Your task to perform on an android device: find snoozed emails in the gmail app Image 0: 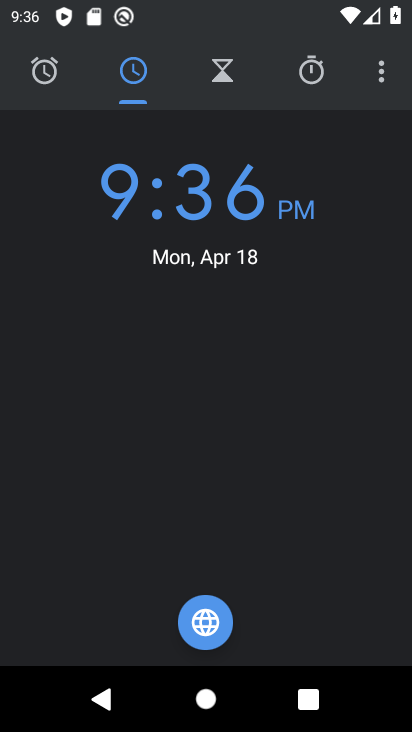
Step 0: press home button
Your task to perform on an android device: find snoozed emails in the gmail app Image 1: 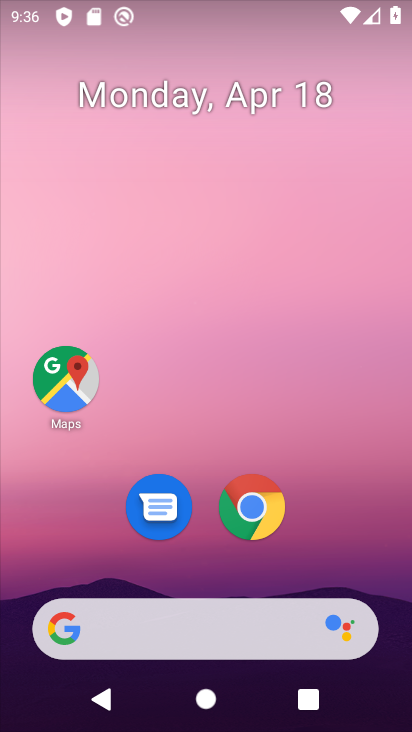
Step 1: drag from (214, 561) to (178, 16)
Your task to perform on an android device: find snoozed emails in the gmail app Image 2: 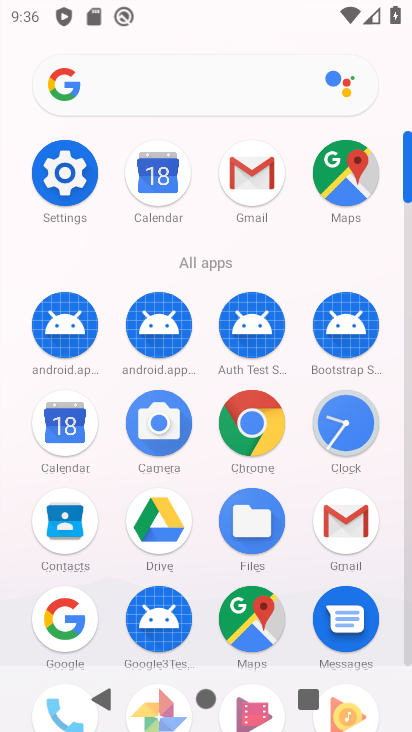
Step 2: click (344, 542)
Your task to perform on an android device: find snoozed emails in the gmail app Image 3: 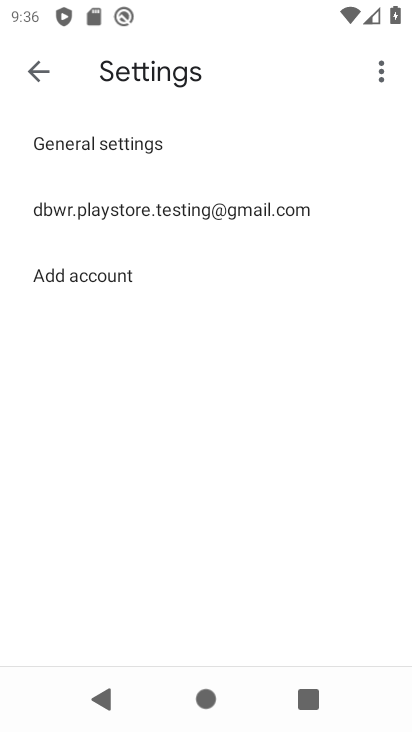
Step 3: click (27, 57)
Your task to perform on an android device: find snoozed emails in the gmail app Image 4: 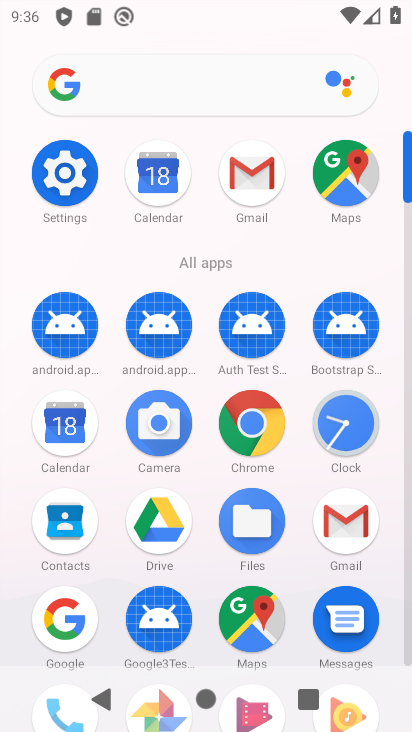
Step 4: click (346, 517)
Your task to perform on an android device: find snoozed emails in the gmail app Image 5: 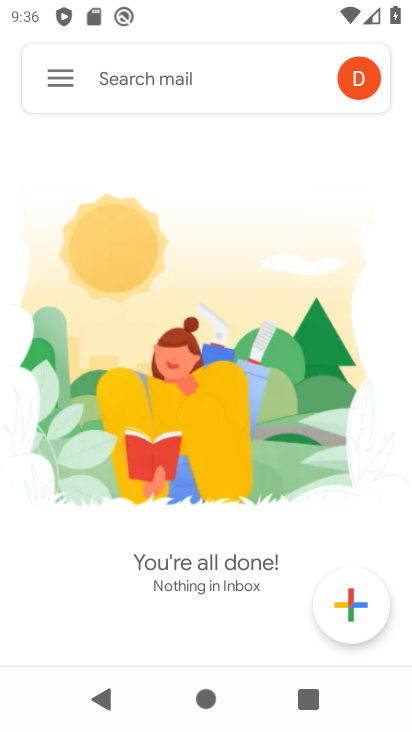
Step 5: click (51, 80)
Your task to perform on an android device: find snoozed emails in the gmail app Image 6: 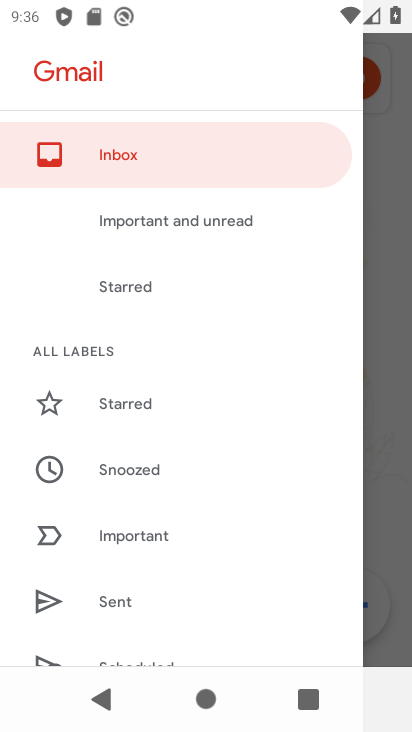
Step 6: click (139, 473)
Your task to perform on an android device: find snoozed emails in the gmail app Image 7: 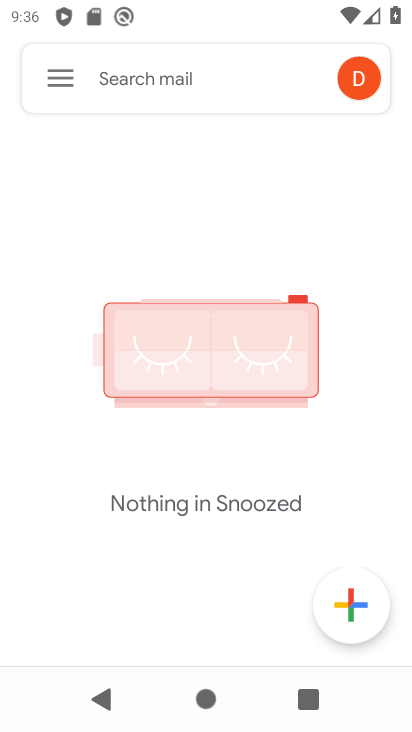
Step 7: task complete